Your task to perform on an android device: turn vacation reply on in the gmail app Image 0: 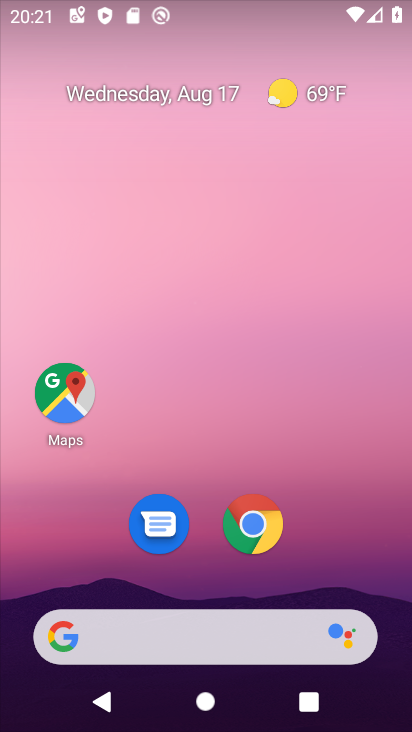
Step 0: drag from (319, 536) to (310, 33)
Your task to perform on an android device: turn vacation reply on in the gmail app Image 1: 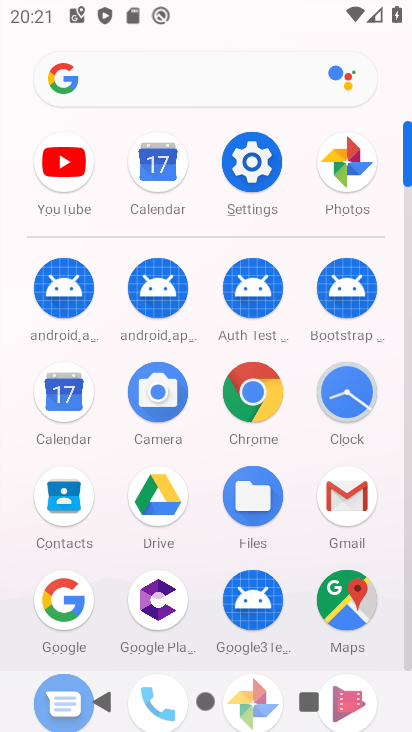
Step 1: click (344, 489)
Your task to perform on an android device: turn vacation reply on in the gmail app Image 2: 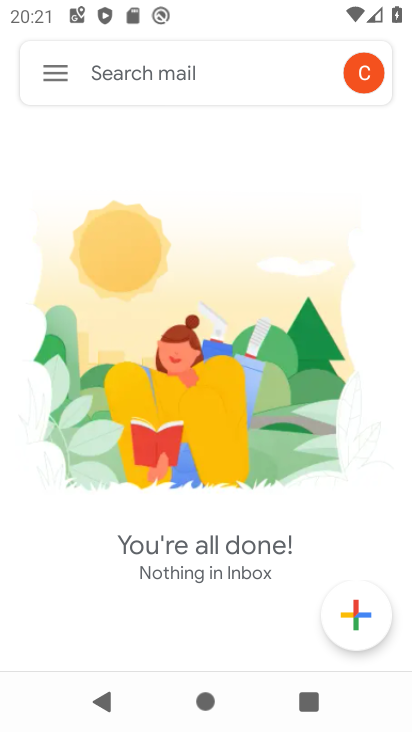
Step 2: click (58, 75)
Your task to perform on an android device: turn vacation reply on in the gmail app Image 3: 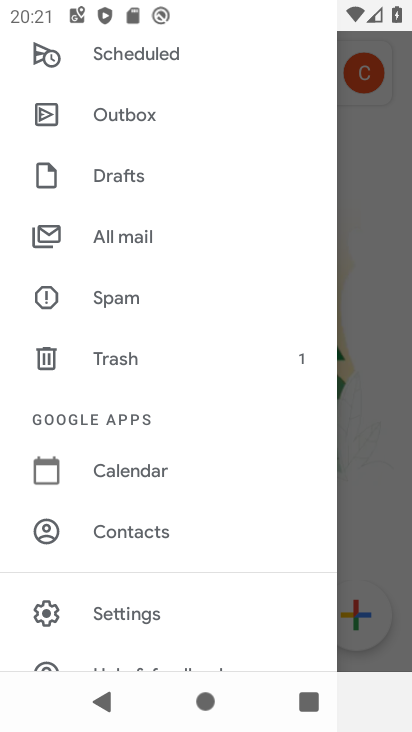
Step 3: click (153, 608)
Your task to perform on an android device: turn vacation reply on in the gmail app Image 4: 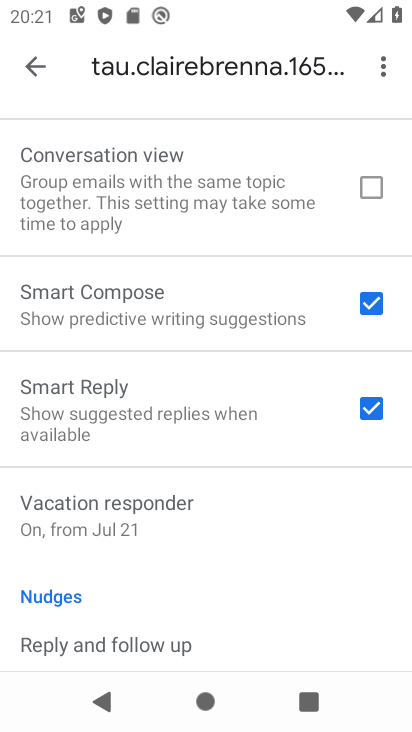
Step 4: click (189, 505)
Your task to perform on an android device: turn vacation reply on in the gmail app Image 5: 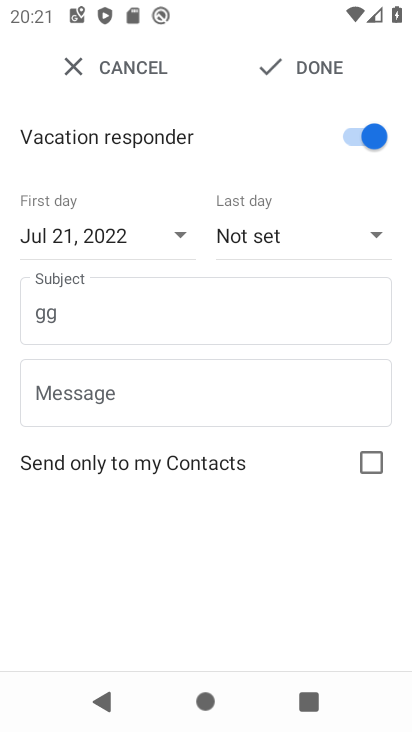
Step 5: task complete